Your task to perform on an android device: open a bookmark in the chrome app Image 0: 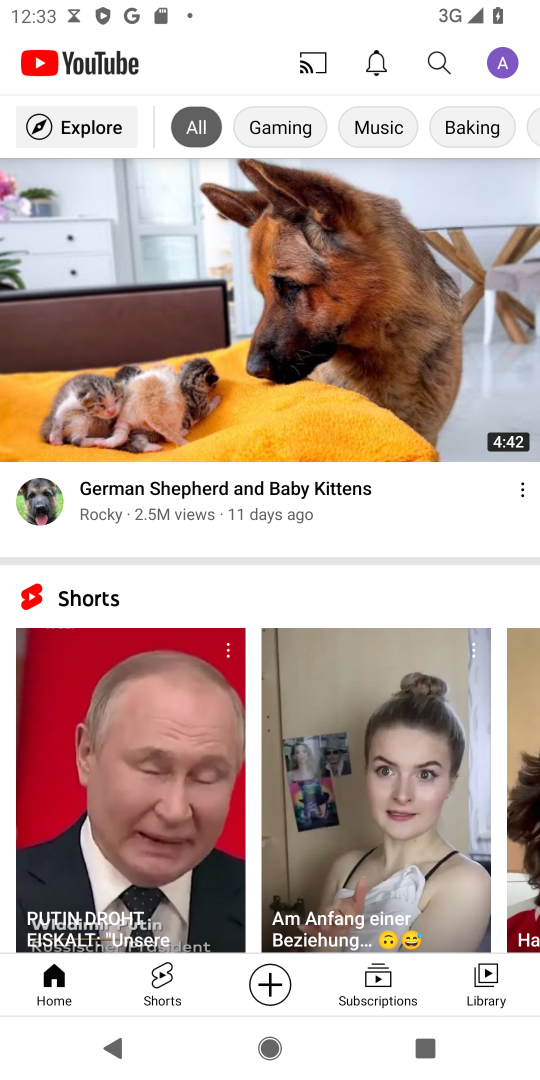
Step 0: press home button
Your task to perform on an android device: open a bookmark in the chrome app Image 1: 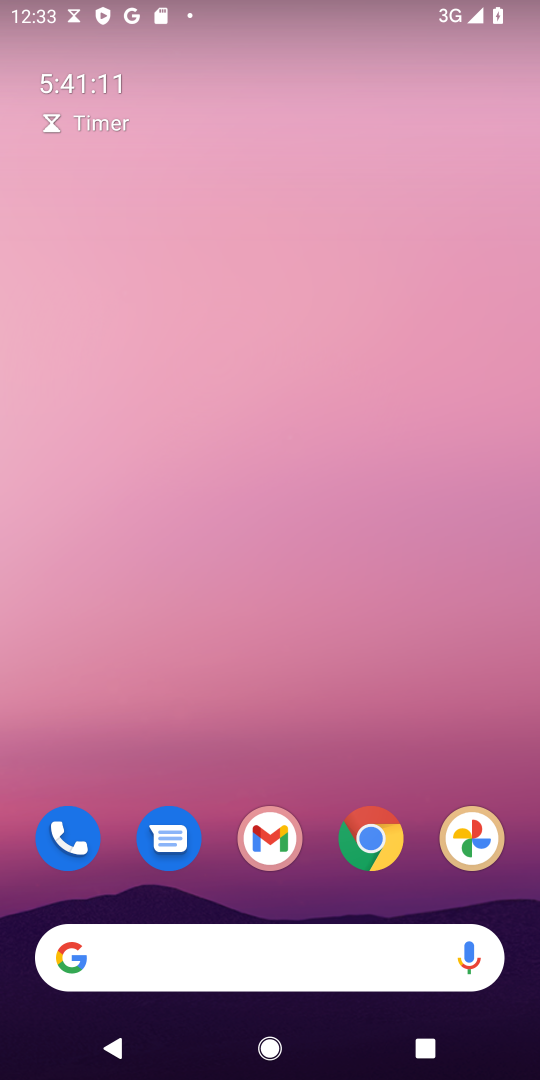
Step 1: click (371, 833)
Your task to perform on an android device: open a bookmark in the chrome app Image 2: 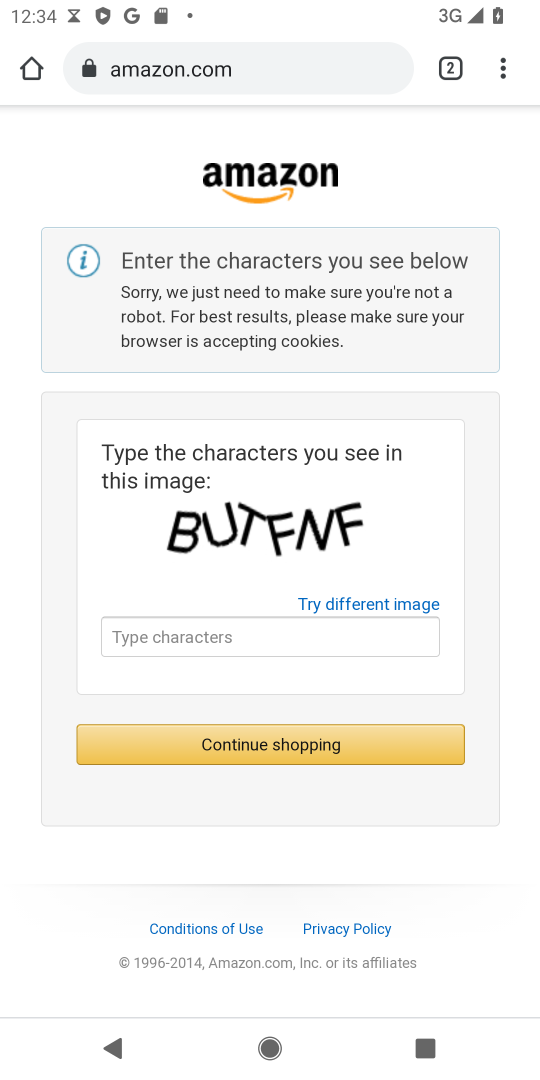
Step 2: click (506, 65)
Your task to perform on an android device: open a bookmark in the chrome app Image 3: 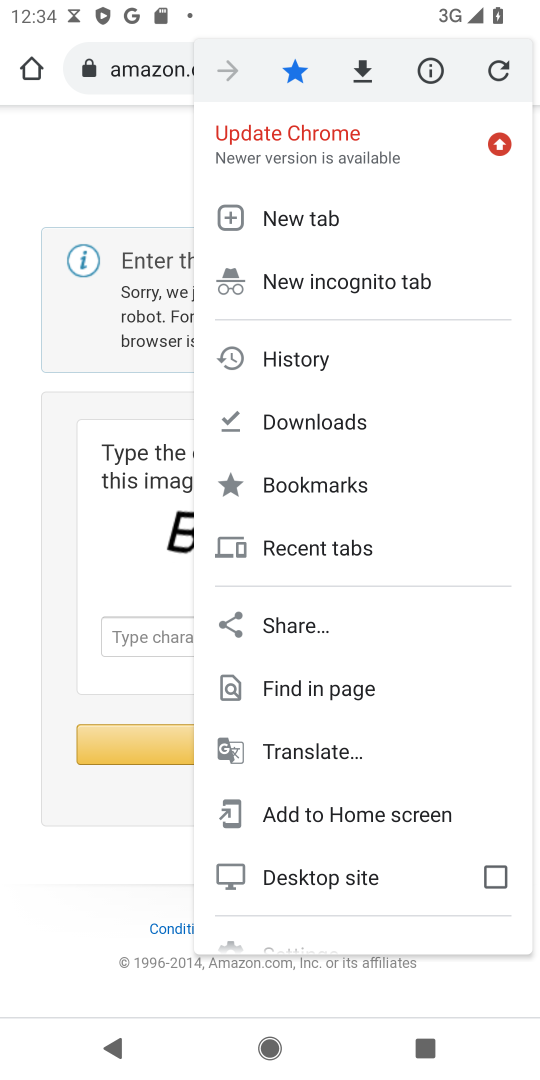
Step 3: click (339, 484)
Your task to perform on an android device: open a bookmark in the chrome app Image 4: 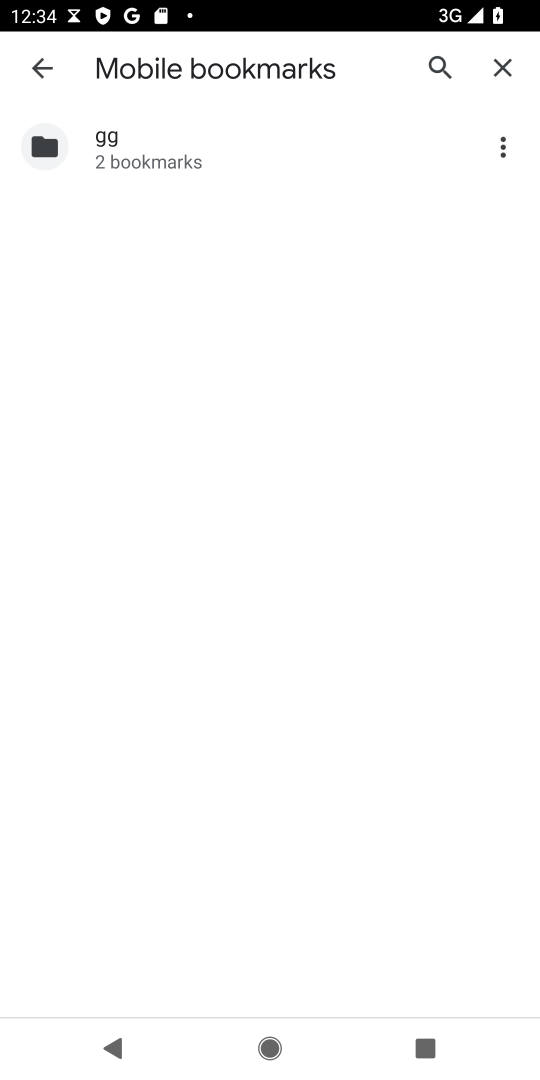
Step 4: click (195, 158)
Your task to perform on an android device: open a bookmark in the chrome app Image 5: 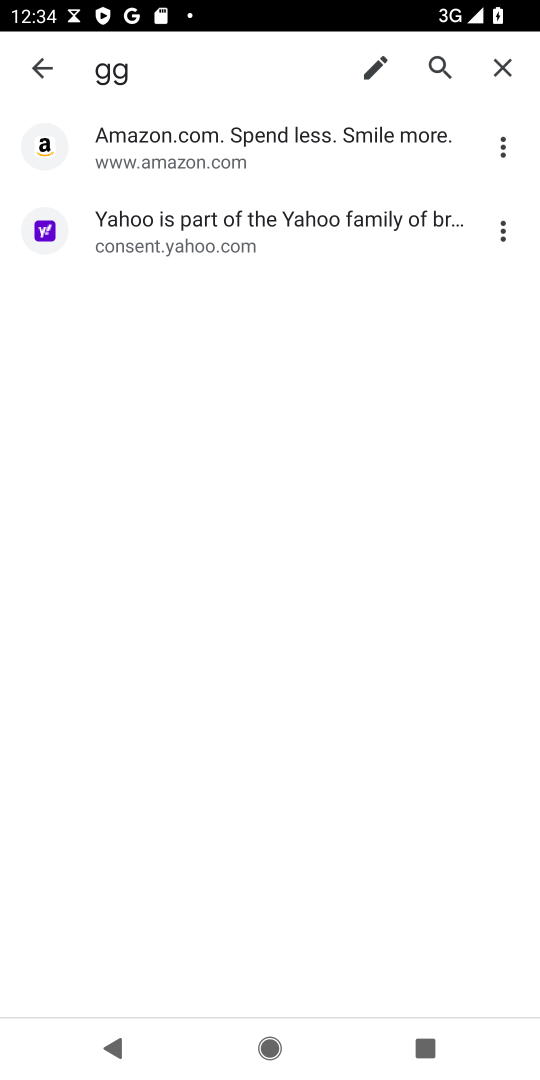
Step 5: click (197, 241)
Your task to perform on an android device: open a bookmark in the chrome app Image 6: 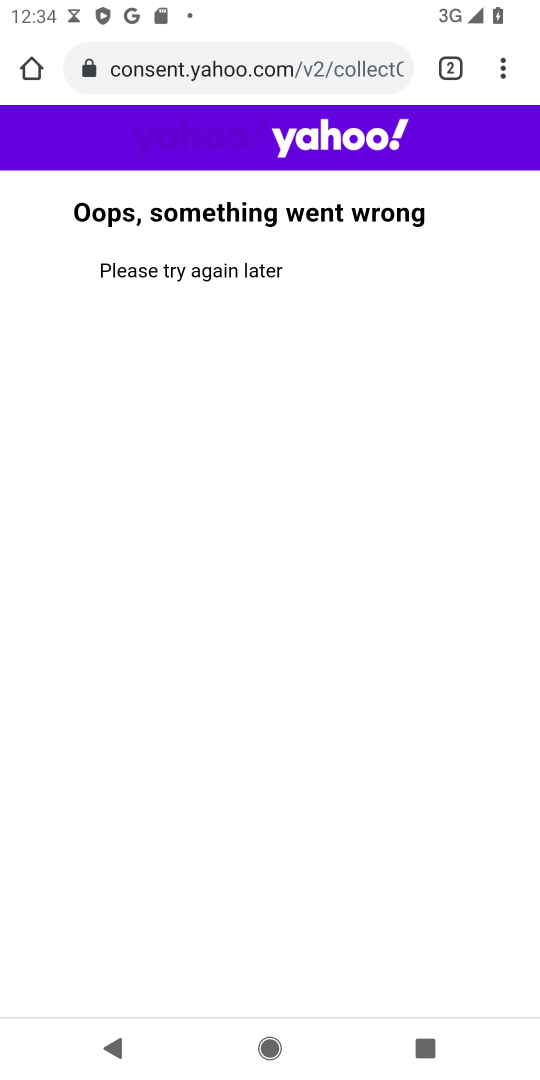
Step 6: task complete